Your task to perform on an android device: turn on improve location accuracy Image 0: 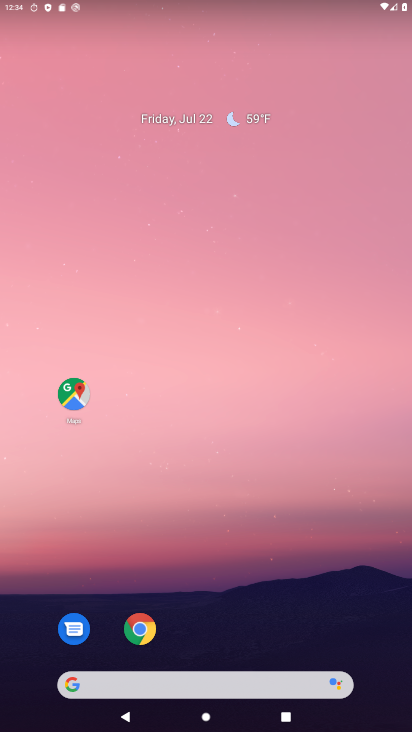
Step 0: drag from (119, 698) to (293, 136)
Your task to perform on an android device: turn on improve location accuracy Image 1: 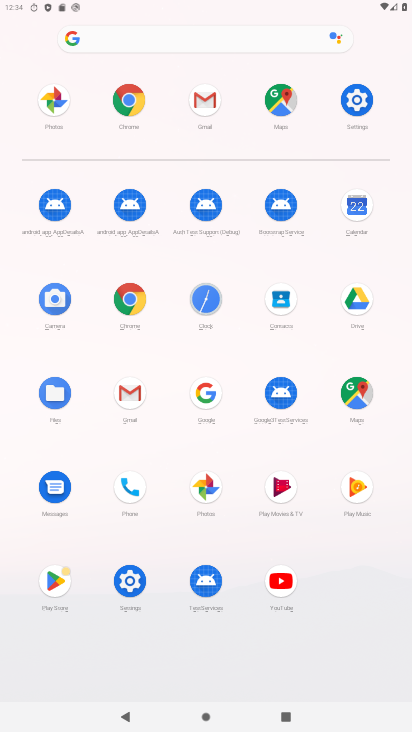
Step 1: click (360, 107)
Your task to perform on an android device: turn on improve location accuracy Image 2: 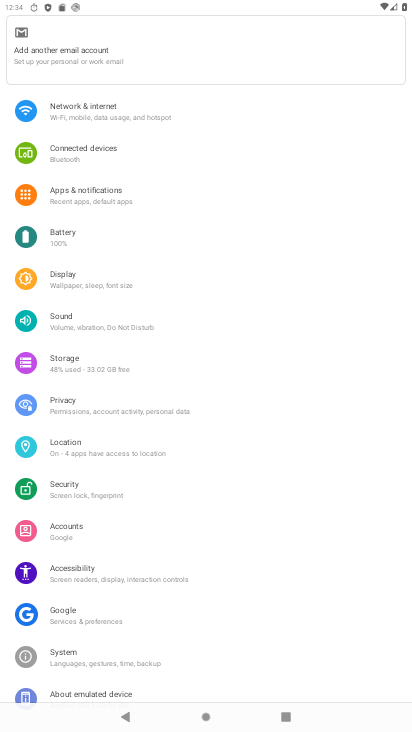
Step 2: click (87, 447)
Your task to perform on an android device: turn on improve location accuracy Image 3: 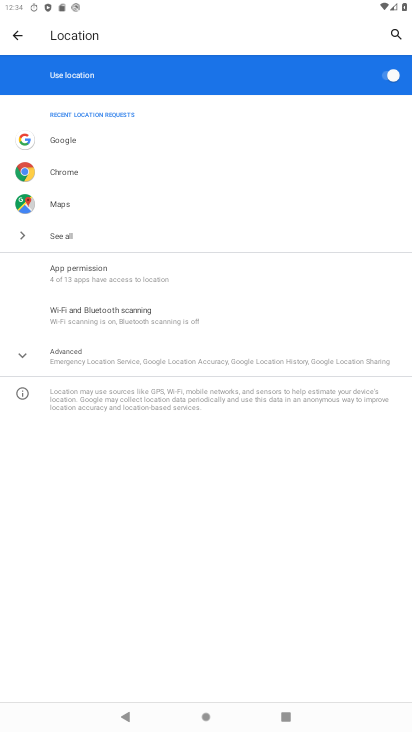
Step 3: click (119, 351)
Your task to perform on an android device: turn on improve location accuracy Image 4: 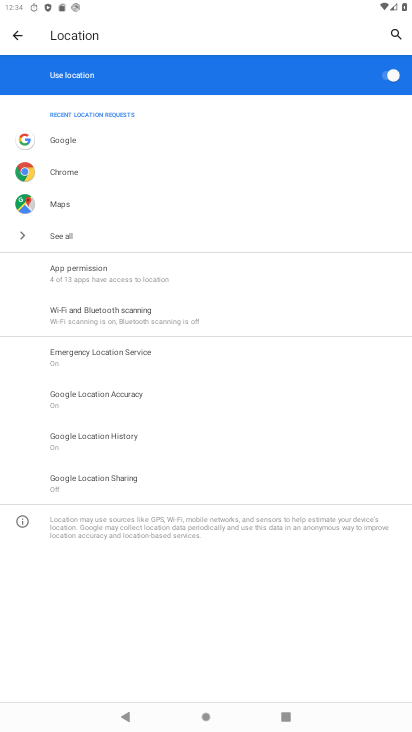
Step 4: click (126, 396)
Your task to perform on an android device: turn on improve location accuracy Image 5: 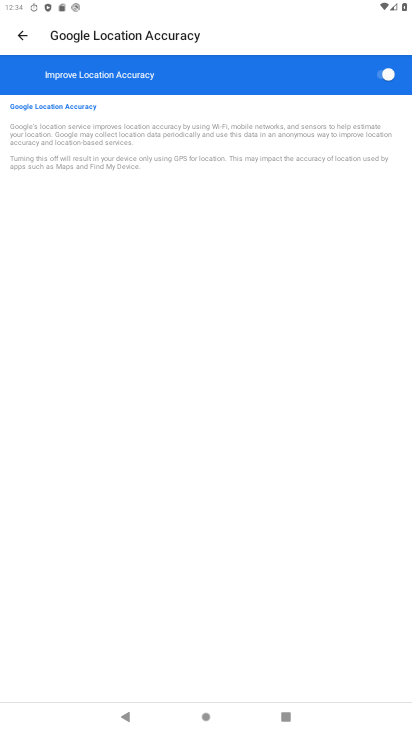
Step 5: task complete